Your task to perform on an android device: open wifi settings Image 0: 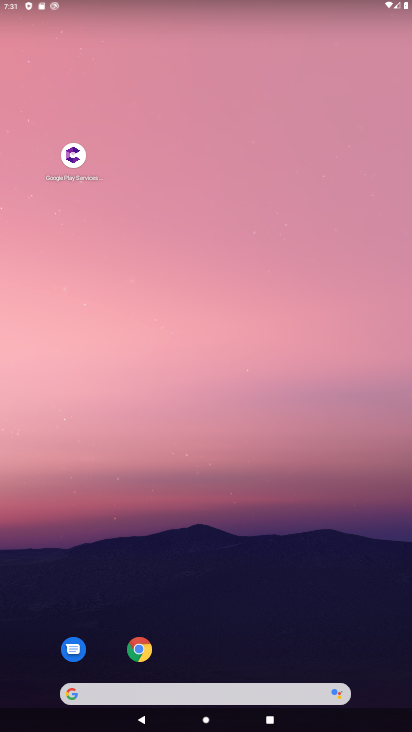
Step 0: drag from (246, 569) to (228, 57)
Your task to perform on an android device: open wifi settings Image 1: 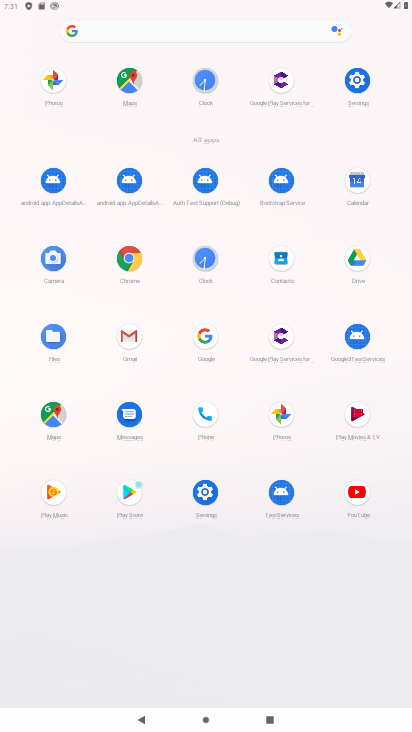
Step 1: click (354, 87)
Your task to perform on an android device: open wifi settings Image 2: 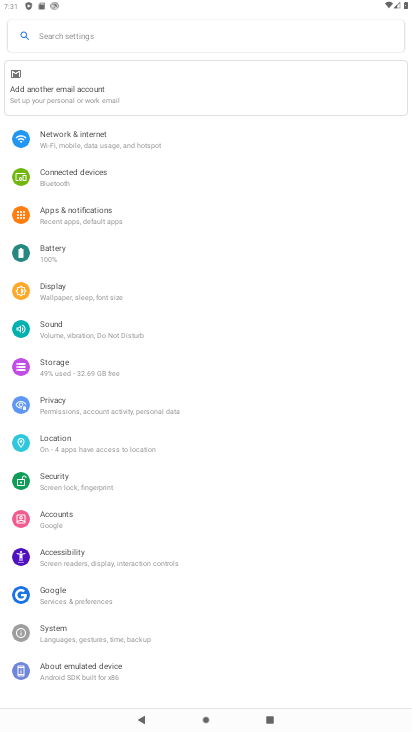
Step 2: click (54, 145)
Your task to perform on an android device: open wifi settings Image 3: 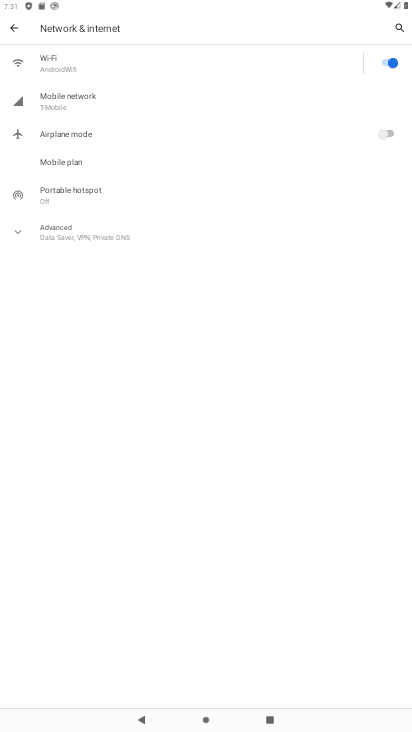
Step 3: click (102, 64)
Your task to perform on an android device: open wifi settings Image 4: 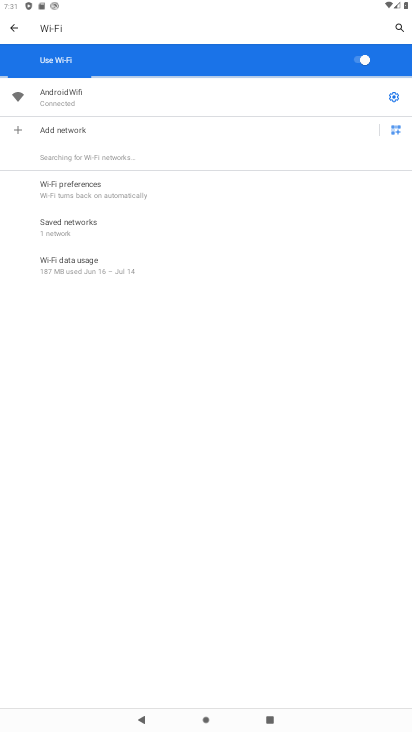
Step 4: task complete